Your task to perform on an android device: change the upload size in google photos Image 0: 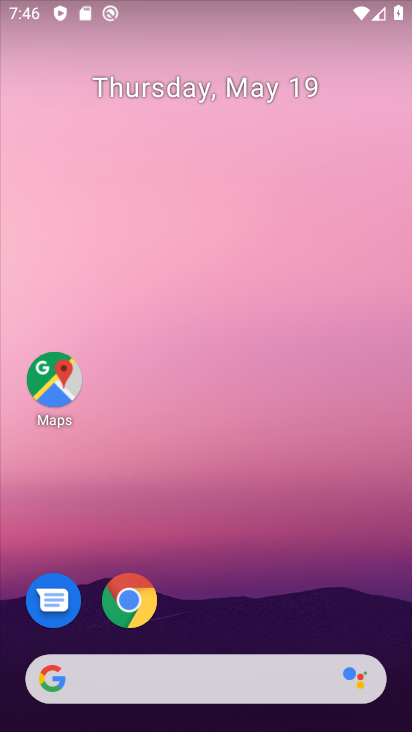
Step 0: drag from (360, 614) to (364, 171)
Your task to perform on an android device: change the upload size in google photos Image 1: 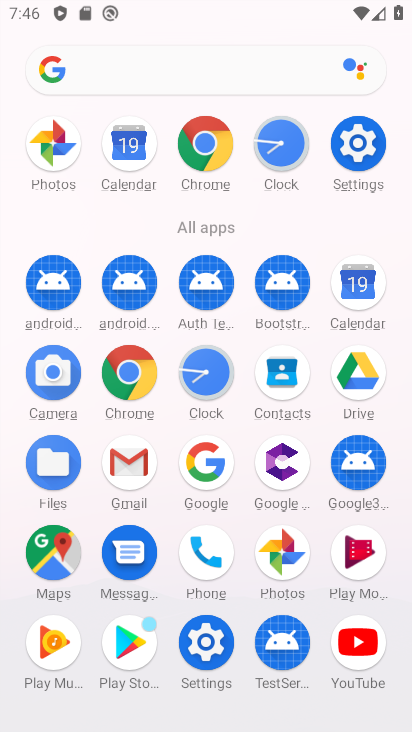
Step 1: click (289, 564)
Your task to perform on an android device: change the upload size in google photos Image 2: 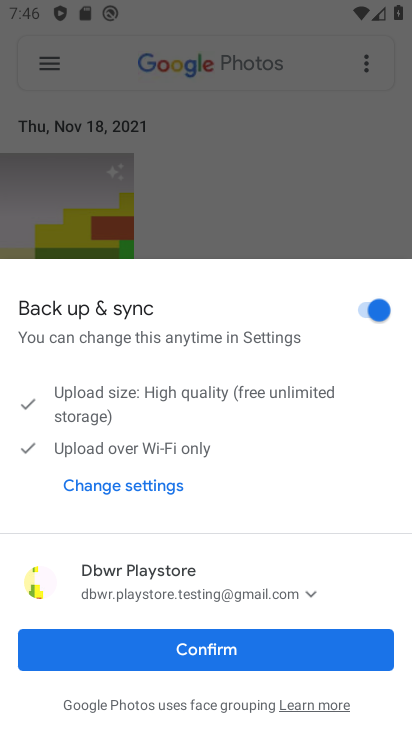
Step 2: click (295, 651)
Your task to perform on an android device: change the upload size in google photos Image 3: 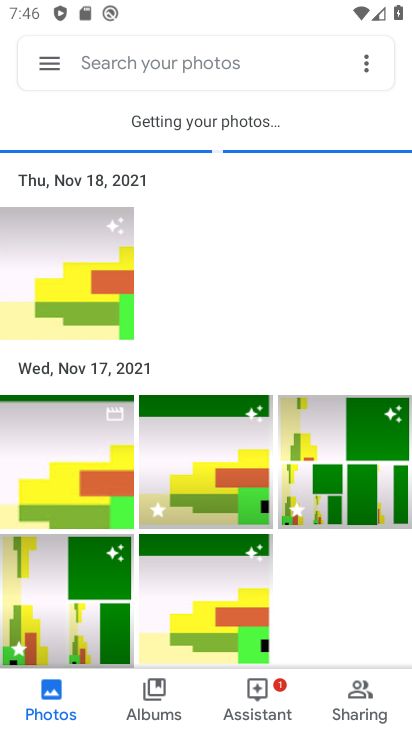
Step 3: click (50, 63)
Your task to perform on an android device: change the upload size in google photos Image 4: 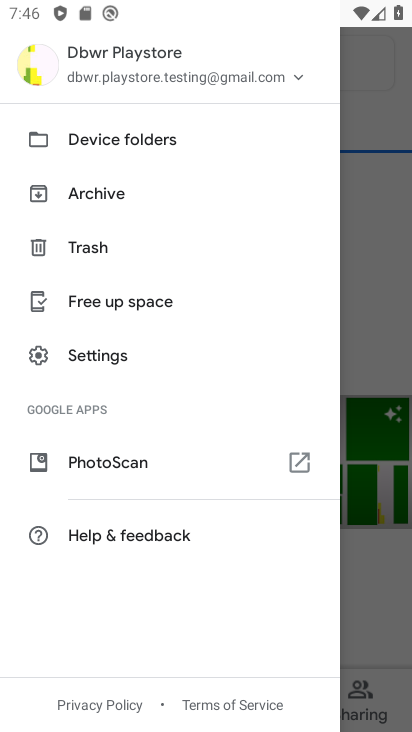
Step 4: drag from (201, 515) to (203, 392)
Your task to perform on an android device: change the upload size in google photos Image 5: 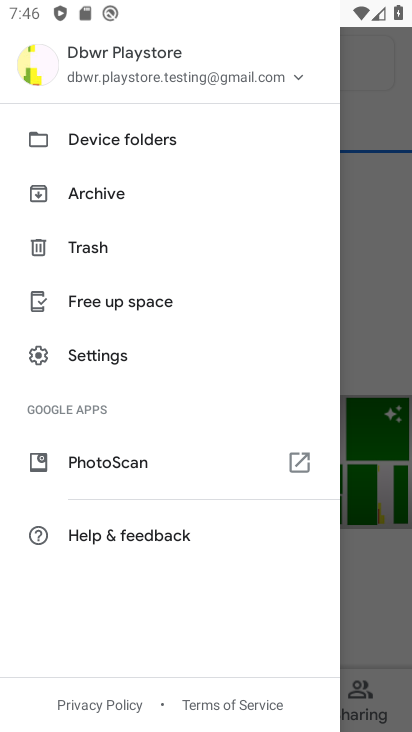
Step 5: click (135, 362)
Your task to perform on an android device: change the upload size in google photos Image 6: 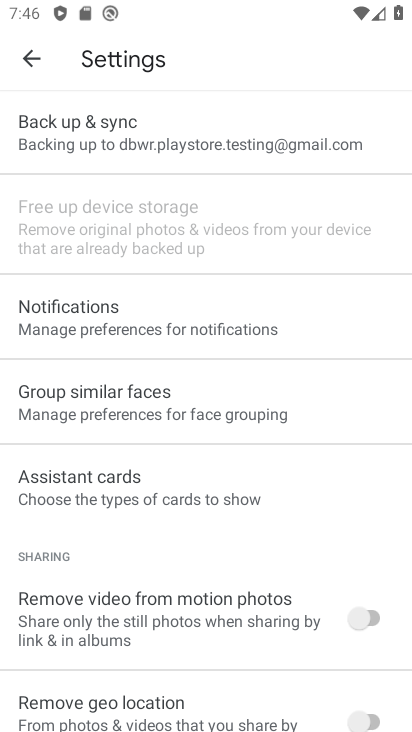
Step 6: drag from (284, 585) to (282, 504)
Your task to perform on an android device: change the upload size in google photos Image 7: 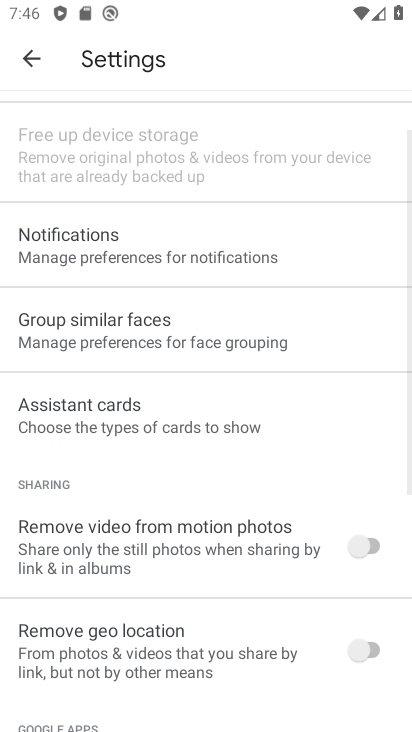
Step 7: drag from (287, 624) to (287, 518)
Your task to perform on an android device: change the upload size in google photos Image 8: 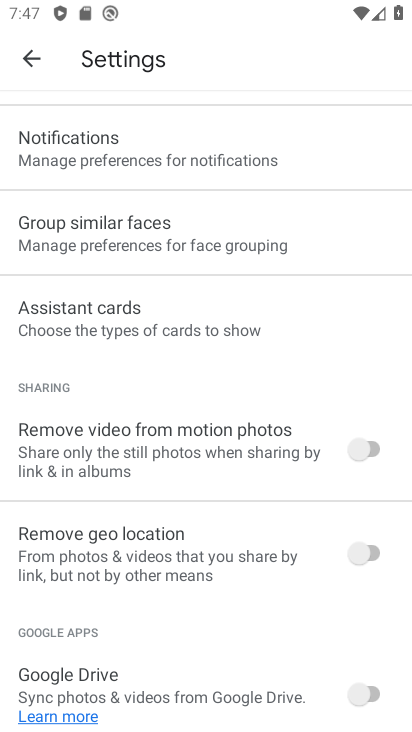
Step 8: drag from (285, 624) to (279, 542)
Your task to perform on an android device: change the upload size in google photos Image 9: 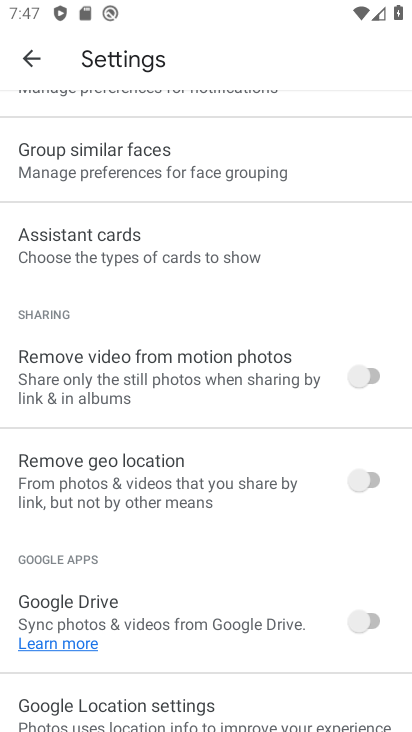
Step 9: drag from (281, 645) to (285, 556)
Your task to perform on an android device: change the upload size in google photos Image 10: 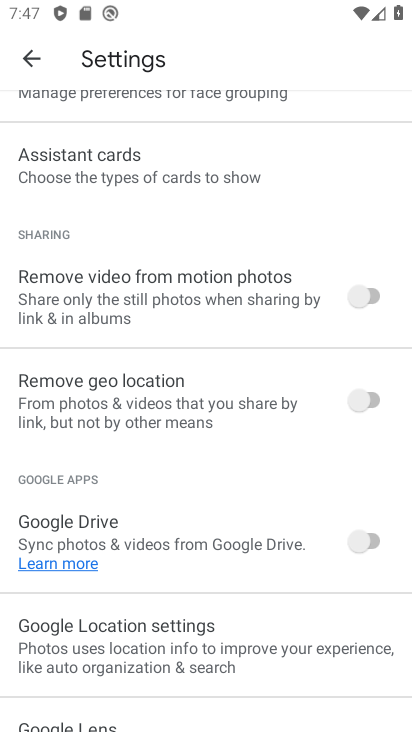
Step 10: drag from (292, 656) to (299, 551)
Your task to perform on an android device: change the upload size in google photos Image 11: 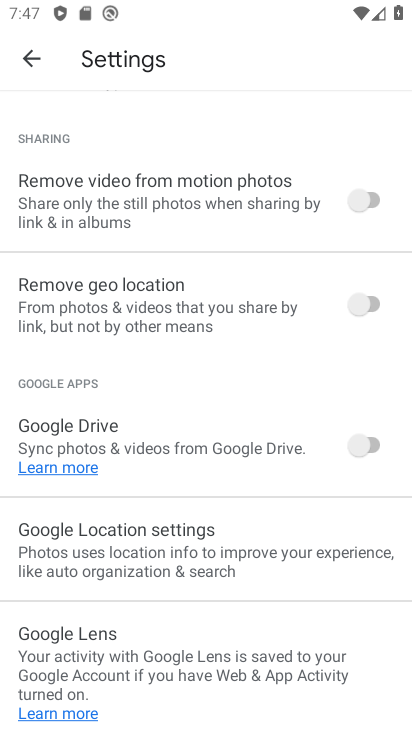
Step 11: drag from (311, 682) to (320, 578)
Your task to perform on an android device: change the upload size in google photos Image 12: 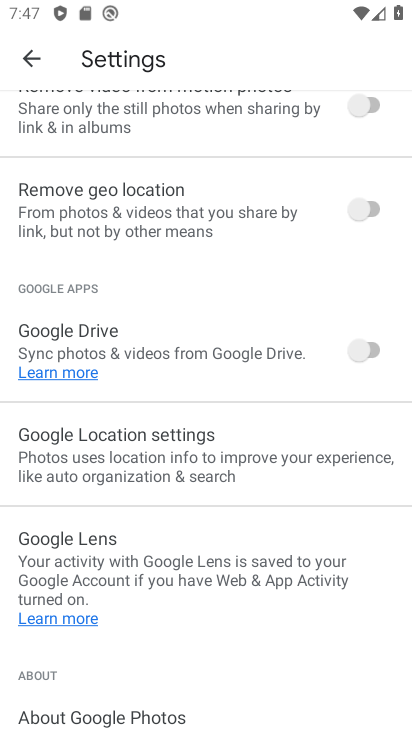
Step 12: drag from (325, 676) to (327, 578)
Your task to perform on an android device: change the upload size in google photos Image 13: 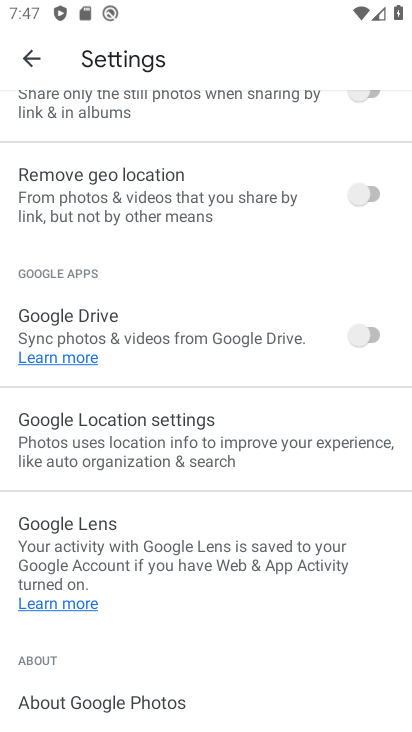
Step 13: drag from (320, 472) to (328, 548)
Your task to perform on an android device: change the upload size in google photos Image 14: 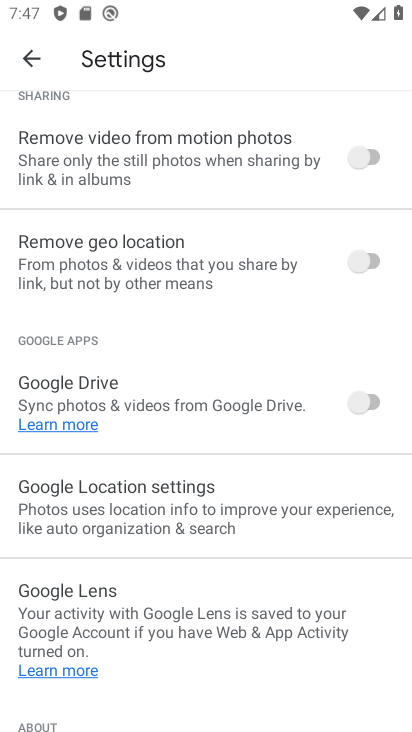
Step 14: drag from (328, 440) to (338, 524)
Your task to perform on an android device: change the upload size in google photos Image 15: 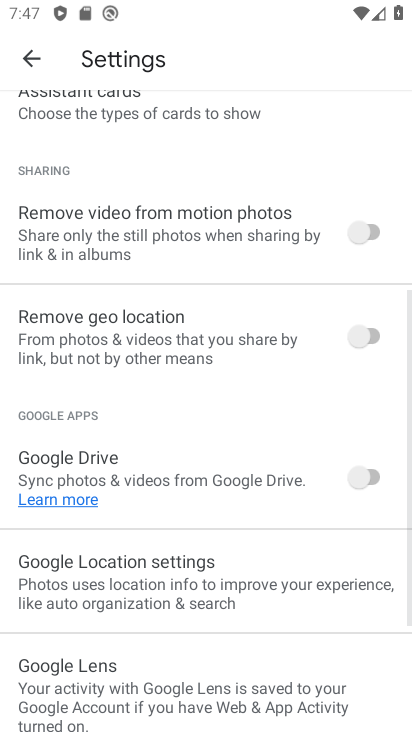
Step 15: drag from (323, 418) to (329, 490)
Your task to perform on an android device: change the upload size in google photos Image 16: 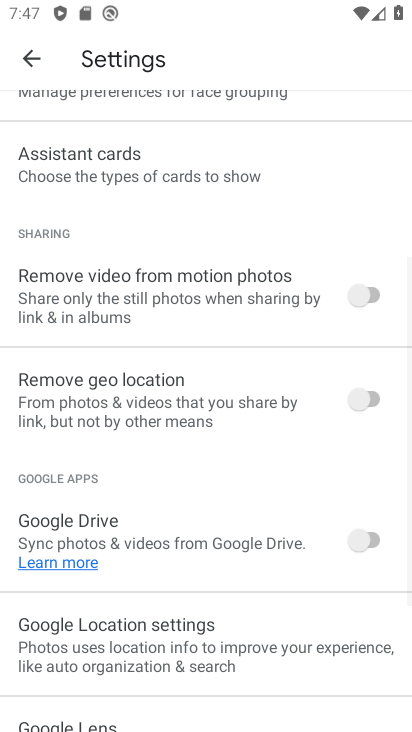
Step 16: drag from (319, 387) to (318, 455)
Your task to perform on an android device: change the upload size in google photos Image 17: 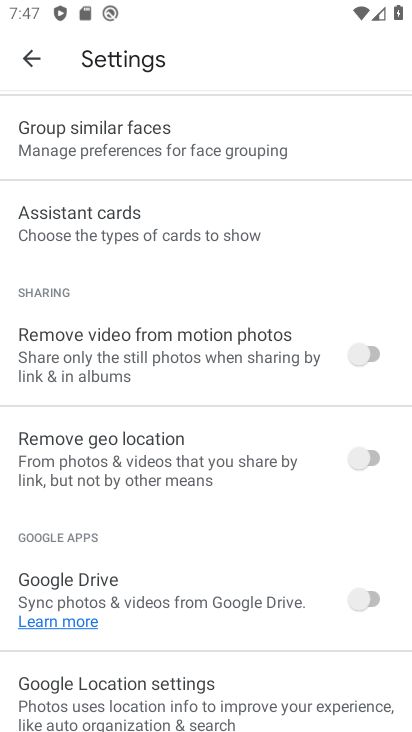
Step 17: drag from (317, 361) to (316, 437)
Your task to perform on an android device: change the upload size in google photos Image 18: 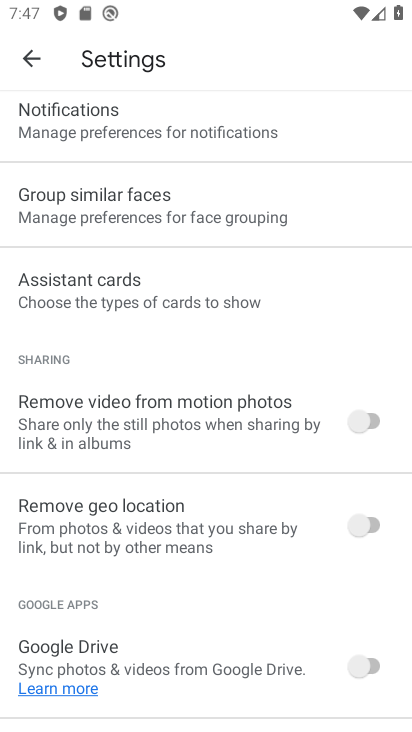
Step 18: drag from (316, 372) to (323, 450)
Your task to perform on an android device: change the upload size in google photos Image 19: 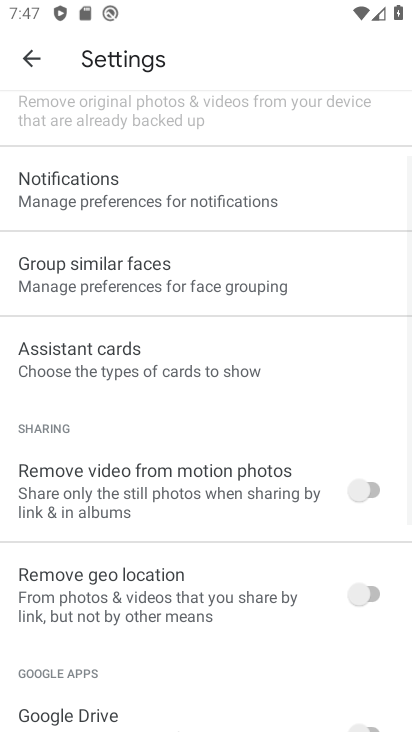
Step 19: drag from (317, 349) to (315, 435)
Your task to perform on an android device: change the upload size in google photos Image 20: 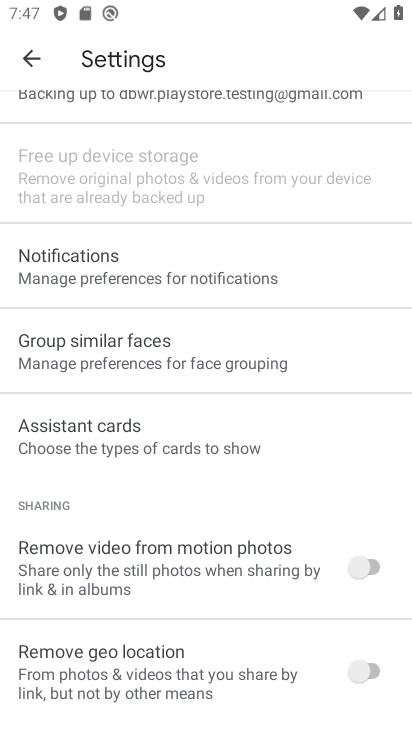
Step 20: drag from (315, 353) to (317, 433)
Your task to perform on an android device: change the upload size in google photos Image 21: 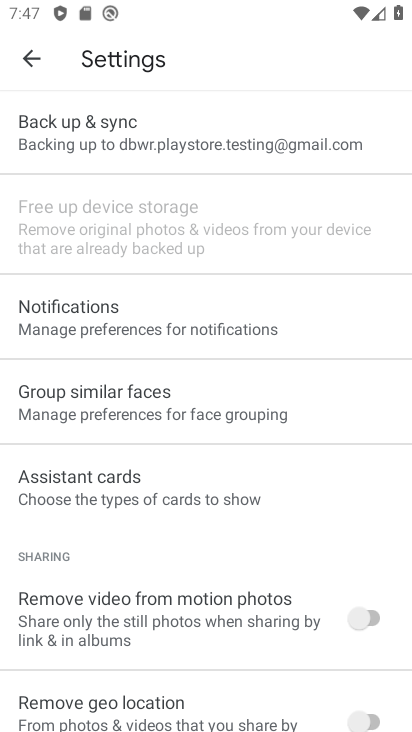
Step 21: drag from (313, 327) to (309, 437)
Your task to perform on an android device: change the upload size in google photos Image 22: 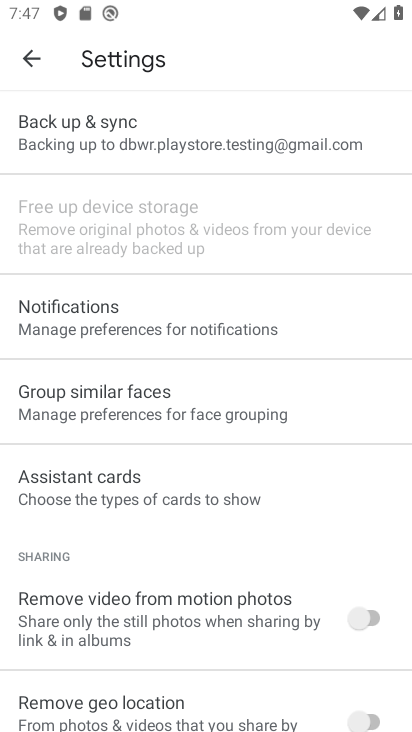
Step 22: click (268, 155)
Your task to perform on an android device: change the upload size in google photos Image 23: 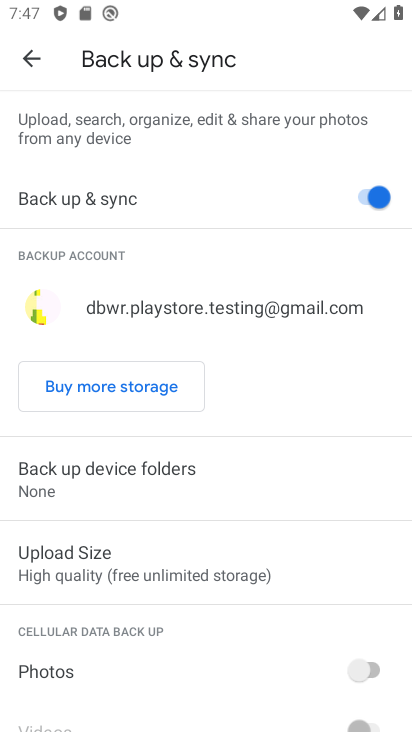
Step 23: drag from (270, 554) to (290, 442)
Your task to perform on an android device: change the upload size in google photos Image 24: 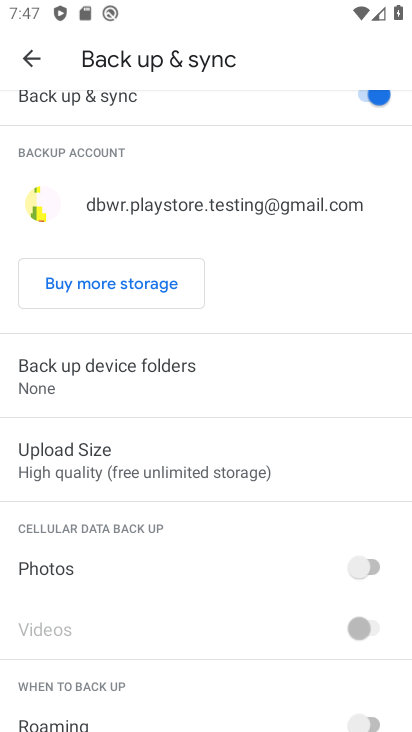
Step 24: drag from (275, 601) to (281, 484)
Your task to perform on an android device: change the upload size in google photos Image 25: 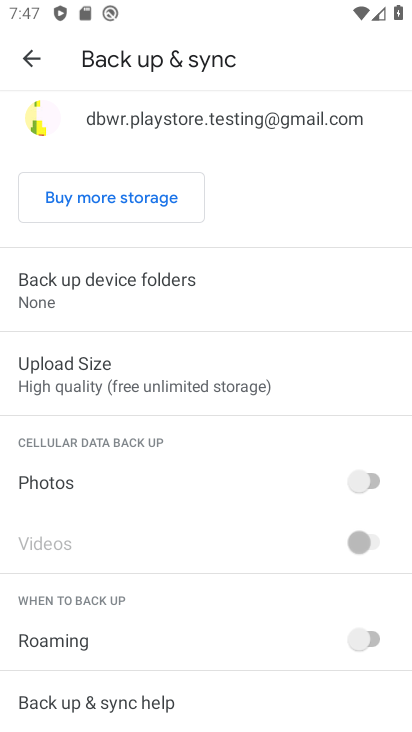
Step 25: click (238, 381)
Your task to perform on an android device: change the upload size in google photos Image 26: 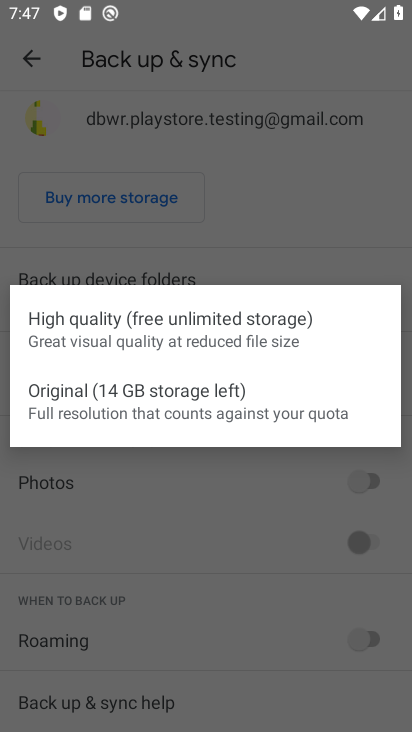
Step 26: click (234, 397)
Your task to perform on an android device: change the upload size in google photos Image 27: 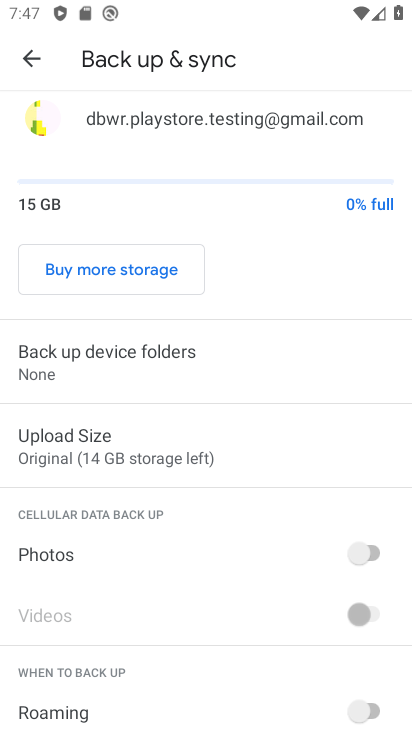
Step 27: task complete